Your task to perform on an android device: What's on my calendar today? Image 0: 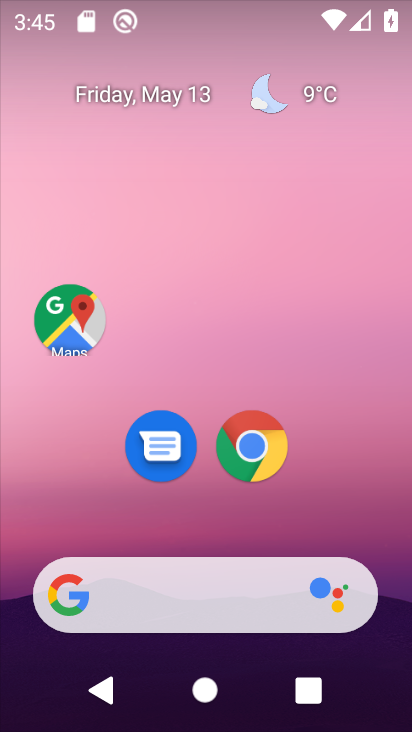
Step 0: drag from (207, 530) to (263, 53)
Your task to perform on an android device: What's on my calendar today? Image 1: 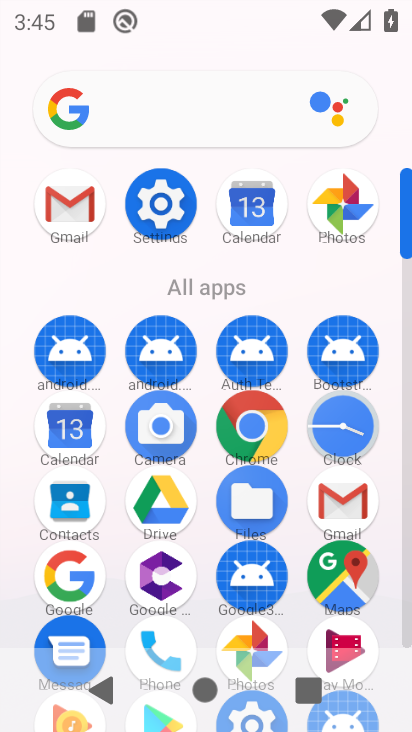
Step 1: click (86, 428)
Your task to perform on an android device: What's on my calendar today? Image 2: 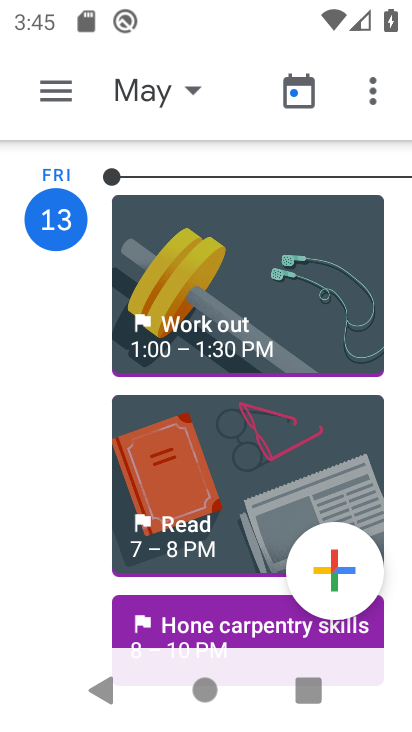
Step 2: task complete